Your task to perform on an android device: Search for vegetarian restaurants on Maps Image 0: 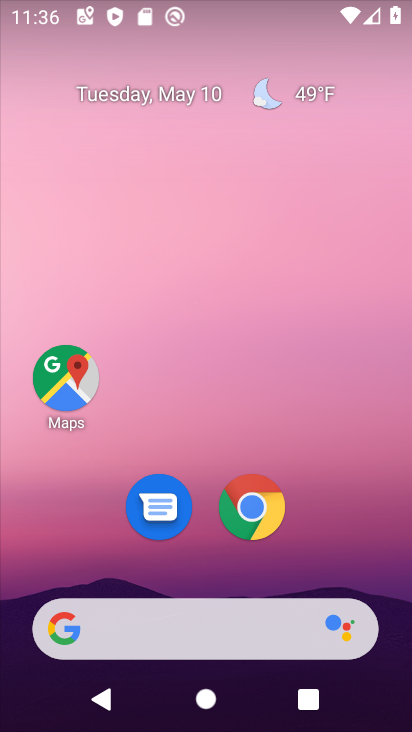
Step 0: click (63, 379)
Your task to perform on an android device: Search for vegetarian restaurants on Maps Image 1: 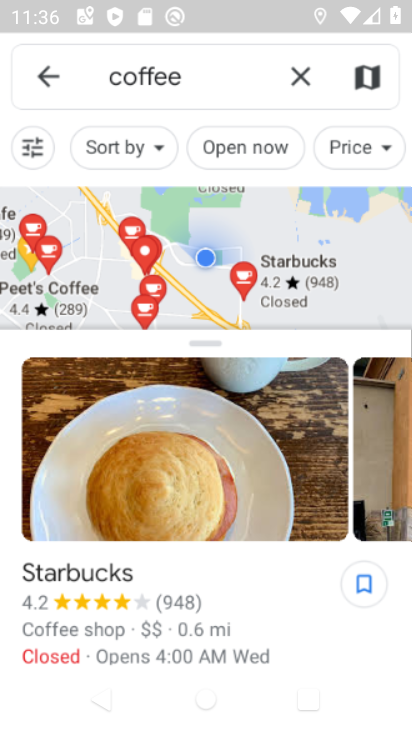
Step 1: click (306, 81)
Your task to perform on an android device: Search for vegetarian restaurants on Maps Image 2: 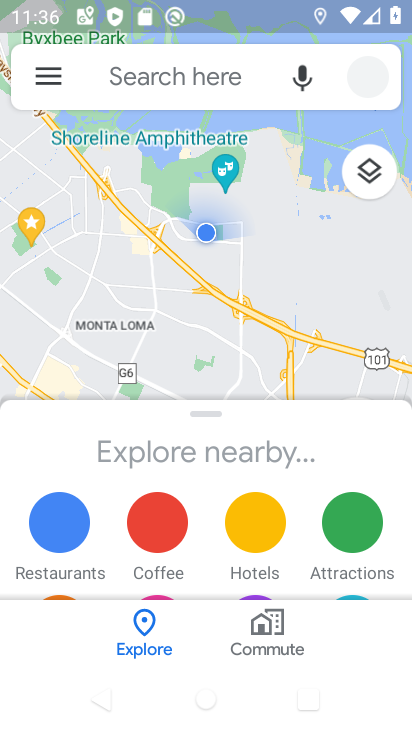
Step 2: click (140, 83)
Your task to perform on an android device: Search for vegetarian restaurants on Maps Image 3: 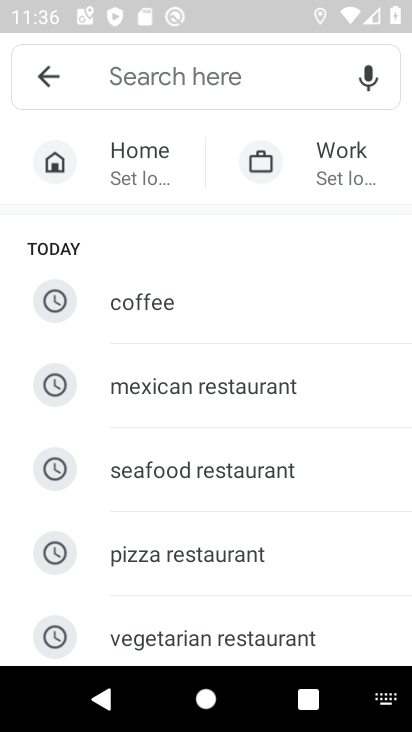
Step 3: click (188, 639)
Your task to perform on an android device: Search for vegetarian restaurants on Maps Image 4: 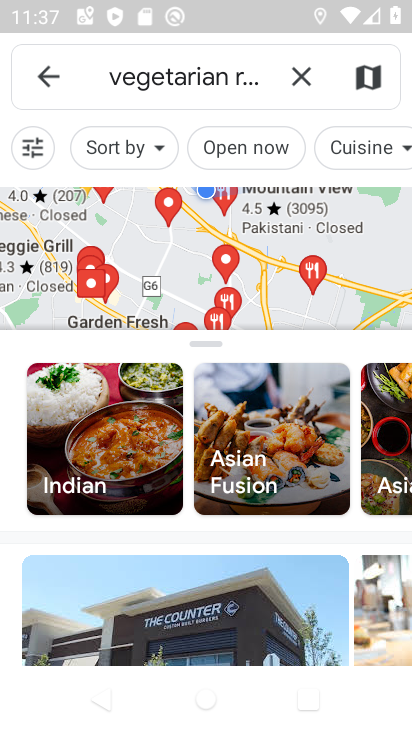
Step 4: task complete